Your task to perform on an android device: Go to wifi settings Image 0: 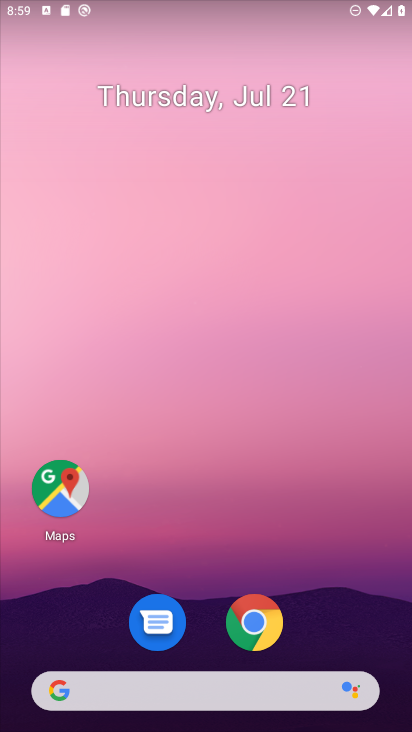
Step 0: drag from (118, 517) to (170, 217)
Your task to perform on an android device: Go to wifi settings Image 1: 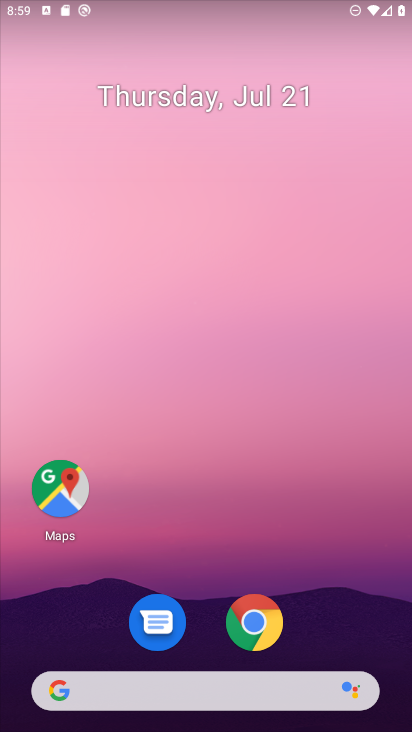
Step 1: drag from (265, 718) to (234, 85)
Your task to perform on an android device: Go to wifi settings Image 2: 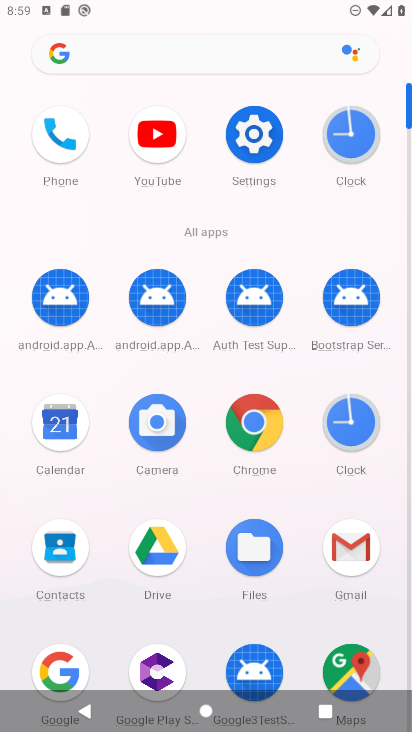
Step 2: drag from (291, 614) to (407, 492)
Your task to perform on an android device: Go to wifi settings Image 3: 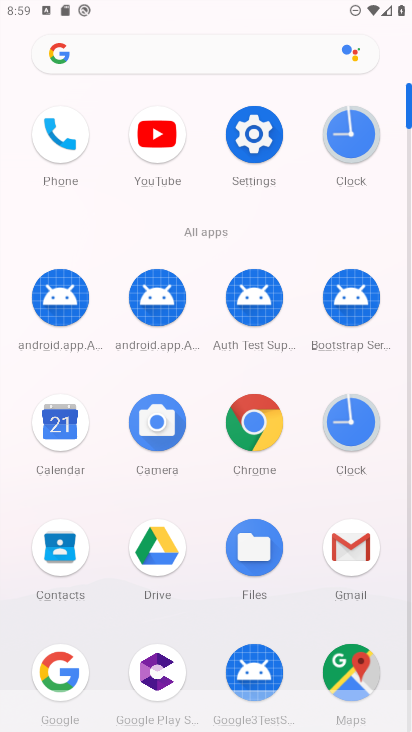
Step 3: click (266, 155)
Your task to perform on an android device: Go to wifi settings Image 4: 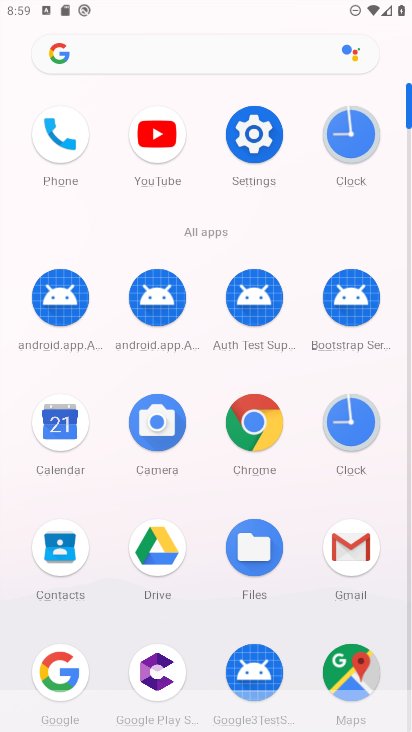
Step 4: click (266, 155)
Your task to perform on an android device: Go to wifi settings Image 5: 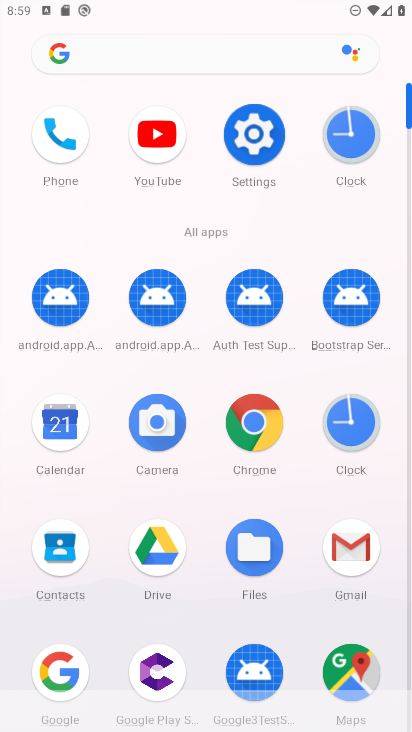
Step 5: click (266, 155)
Your task to perform on an android device: Go to wifi settings Image 6: 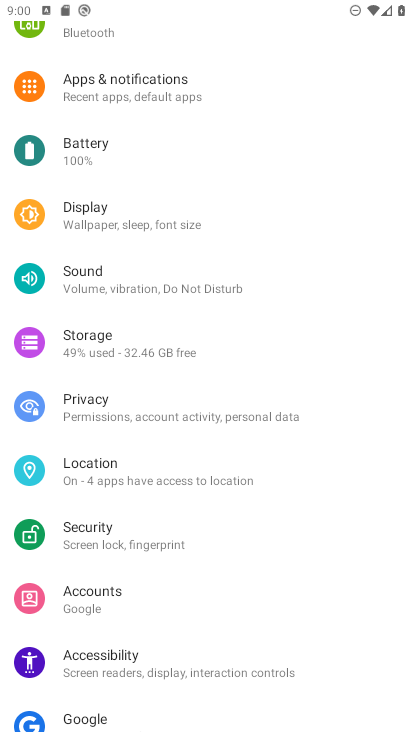
Step 6: drag from (259, 153) to (123, 678)
Your task to perform on an android device: Go to wifi settings Image 7: 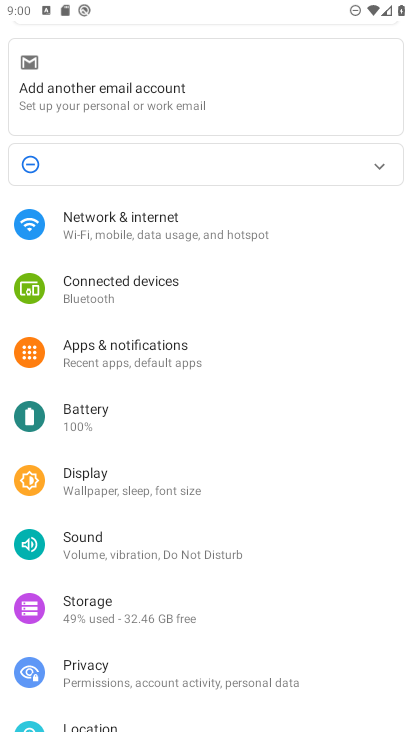
Step 7: click (281, 243)
Your task to perform on an android device: Go to wifi settings Image 8: 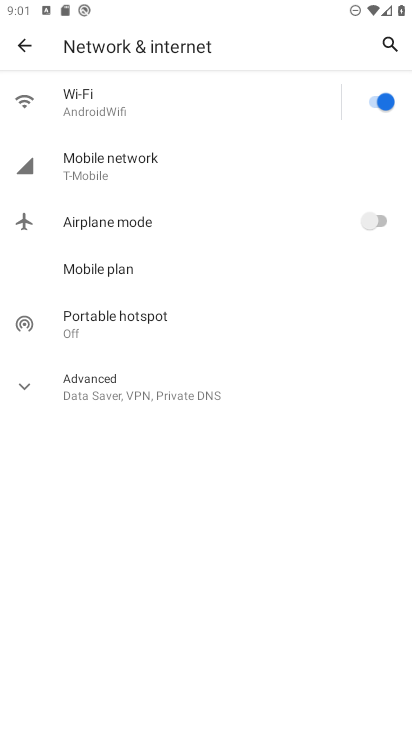
Step 8: click (164, 103)
Your task to perform on an android device: Go to wifi settings Image 9: 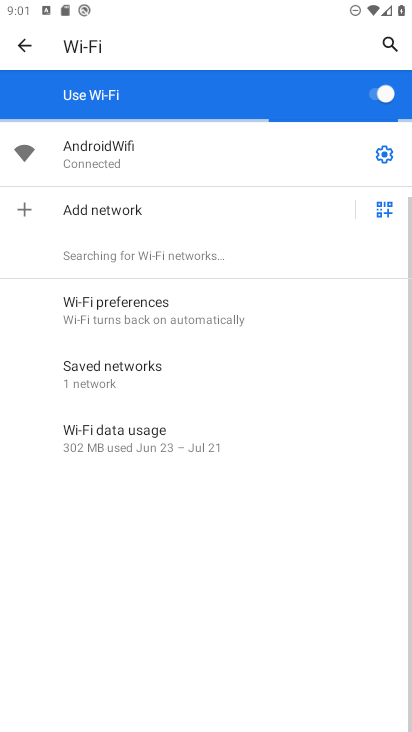
Step 9: click (387, 155)
Your task to perform on an android device: Go to wifi settings Image 10: 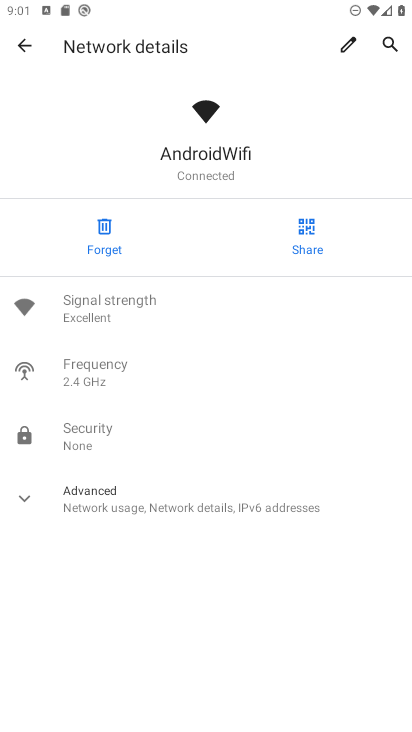
Step 10: task complete